Your task to perform on an android device: Open notification settings Image 0: 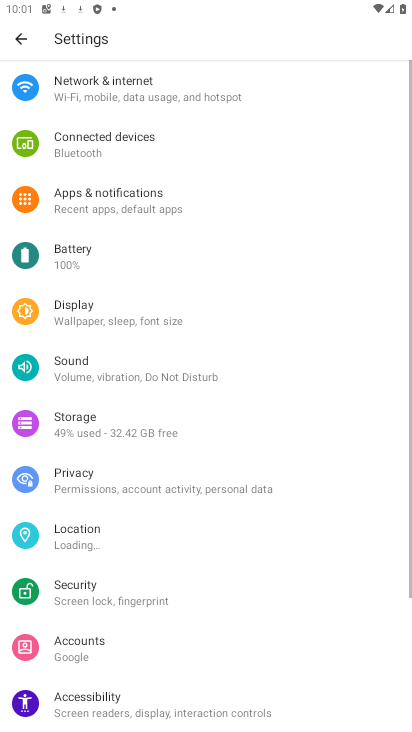
Step 0: press home button
Your task to perform on an android device: Open notification settings Image 1: 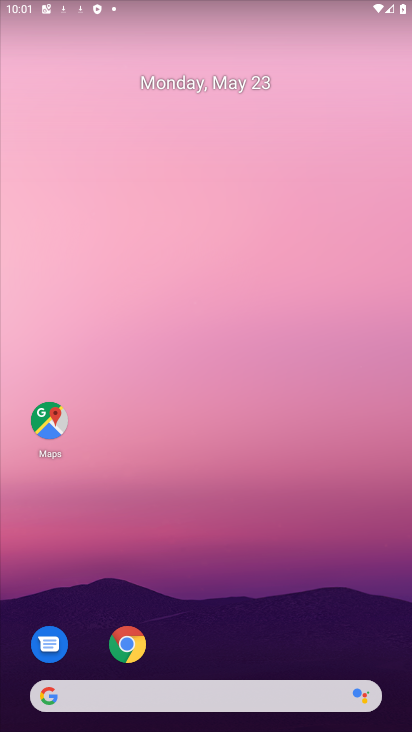
Step 1: drag from (234, 706) to (247, 223)
Your task to perform on an android device: Open notification settings Image 2: 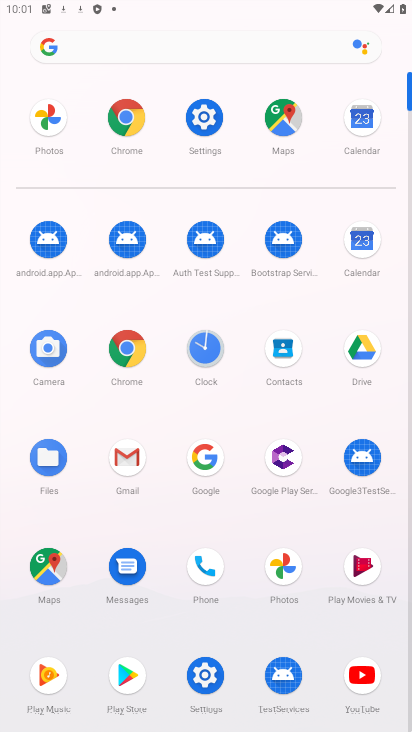
Step 2: click (219, 119)
Your task to perform on an android device: Open notification settings Image 3: 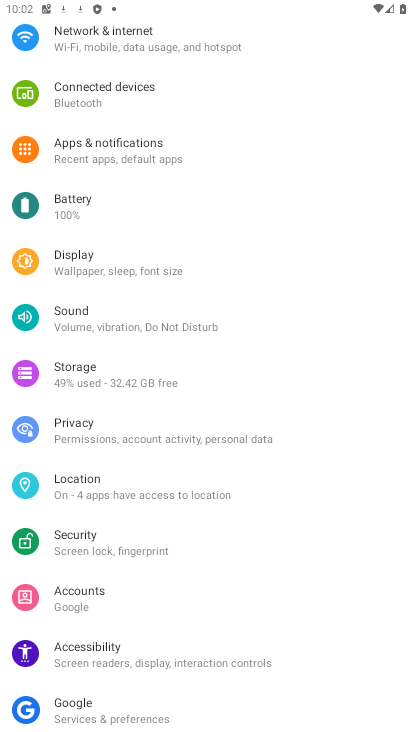
Step 3: drag from (150, 116) to (196, 344)
Your task to perform on an android device: Open notification settings Image 4: 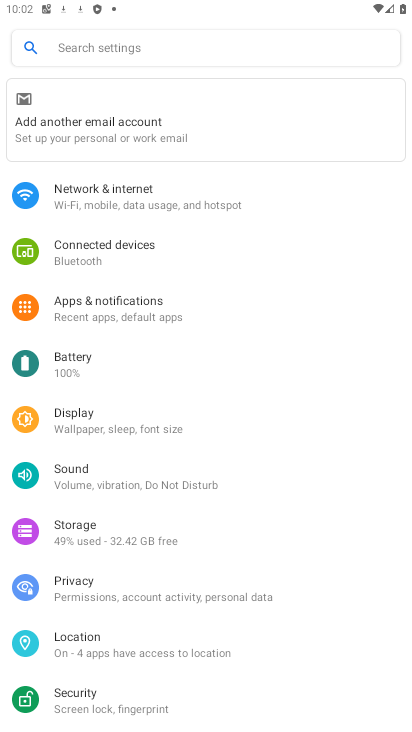
Step 4: click (139, 55)
Your task to perform on an android device: Open notification settings Image 5: 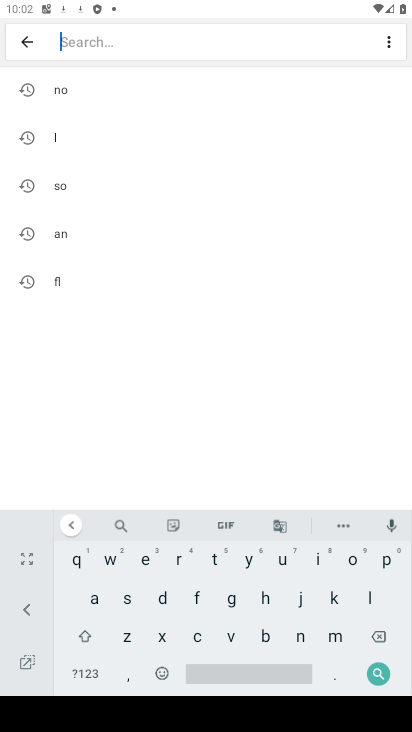
Step 5: click (21, 562)
Your task to perform on an android device: Open notification settings Image 6: 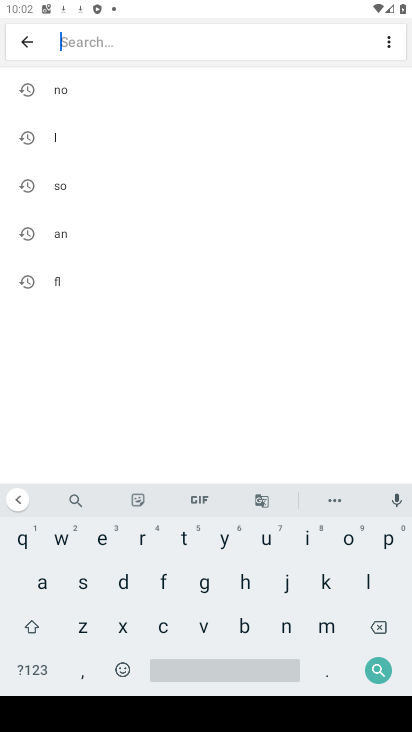
Step 6: click (95, 87)
Your task to perform on an android device: Open notification settings Image 7: 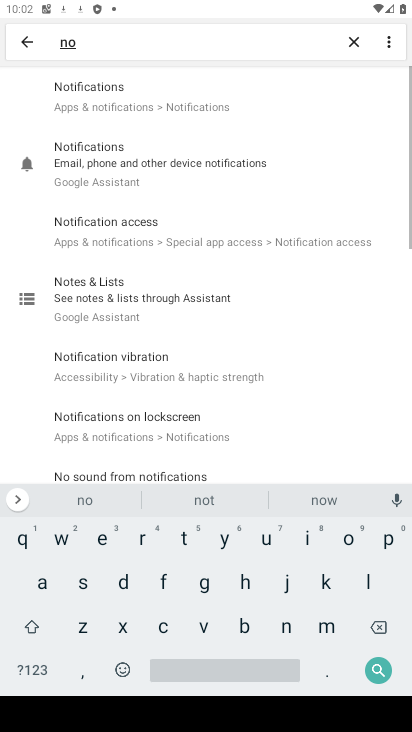
Step 7: click (108, 101)
Your task to perform on an android device: Open notification settings Image 8: 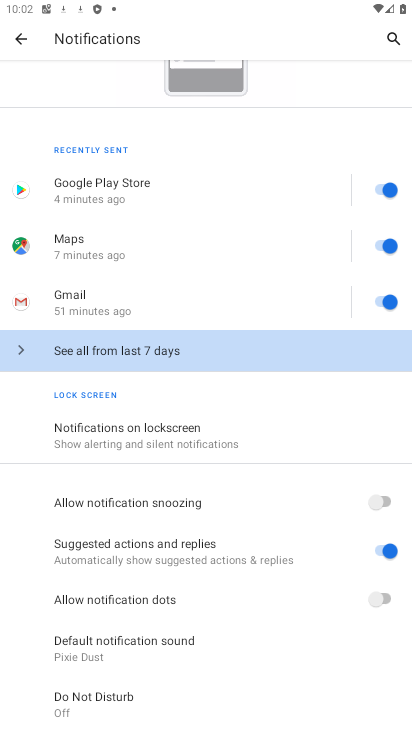
Step 8: click (146, 449)
Your task to perform on an android device: Open notification settings Image 9: 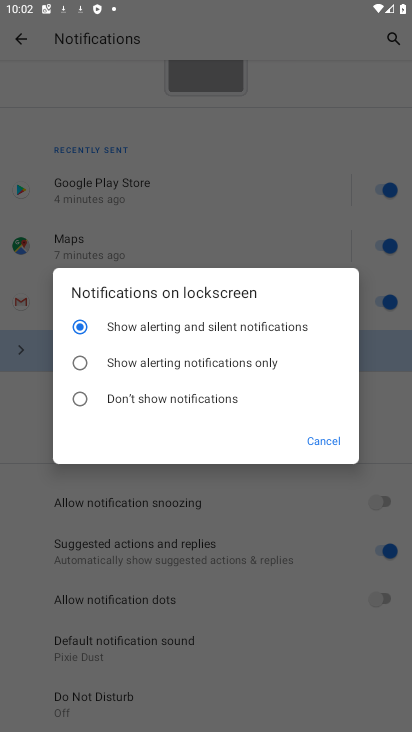
Step 9: task complete